Your task to perform on an android device: Check the weather Image 0: 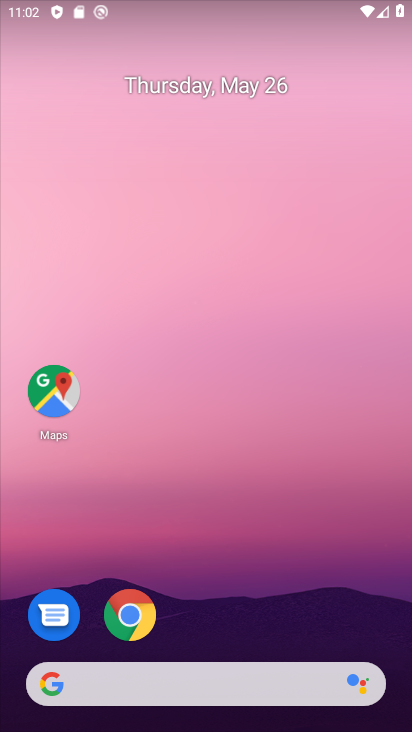
Step 0: press home button
Your task to perform on an android device: Check the weather Image 1: 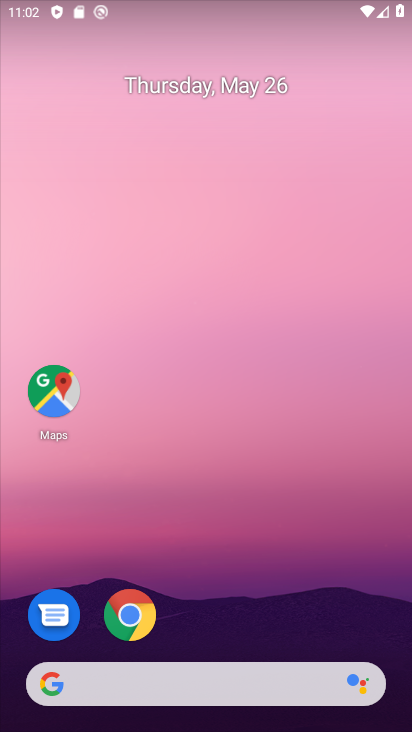
Step 1: drag from (409, 711) to (200, 232)
Your task to perform on an android device: Check the weather Image 2: 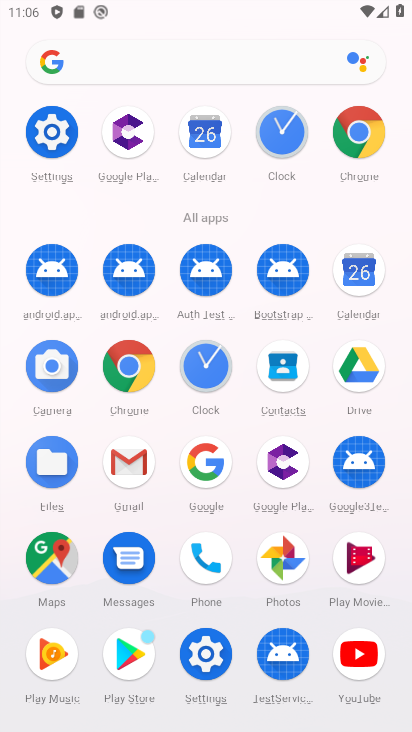
Step 2: click (372, 139)
Your task to perform on an android device: Check the weather Image 3: 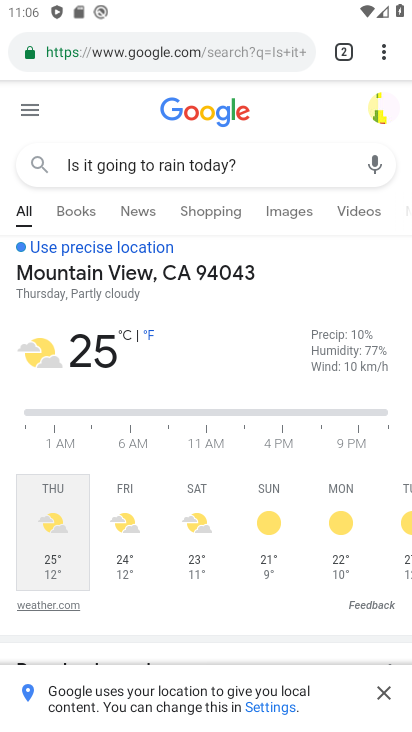
Step 3: click (248, 53)
Your task to perform on an android device: Check the weather Image 4: 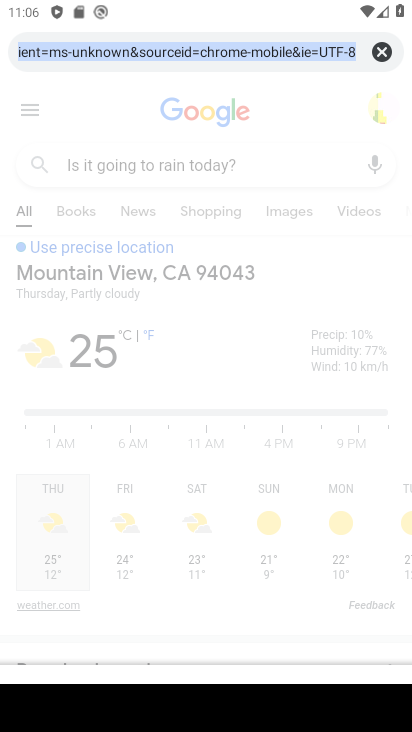
Step 4: click (377, 56)
Your task to perform on an android device: Check the weather Image 5: 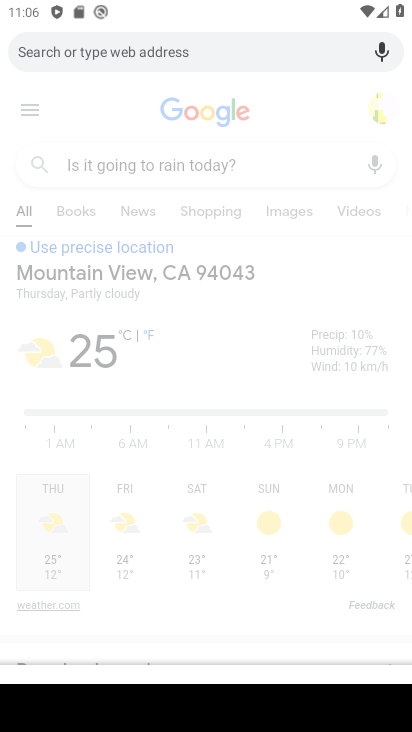
Step 5: click (73, 53)
Your task to perform on an android device: Check the weather Image 6: 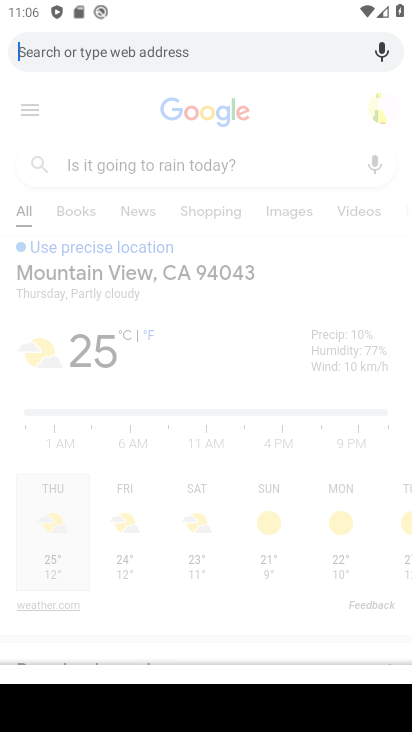
Step 6: type " weather"
Your task to perform on an android device: Check the weather Image 7: 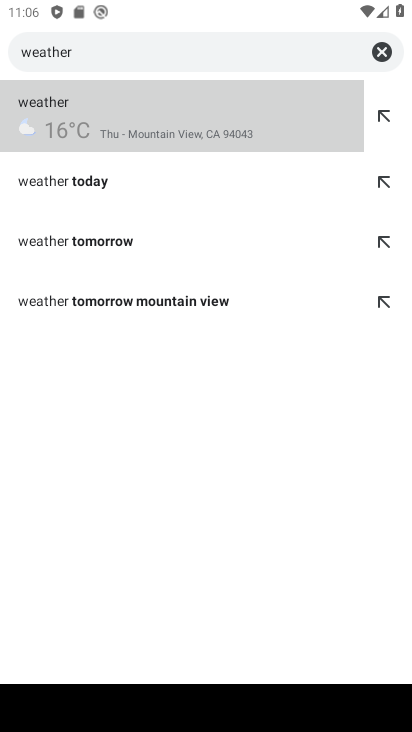
Step 7: click (309, 104)
Your task to perform on an android device: Check the weather Image 8: 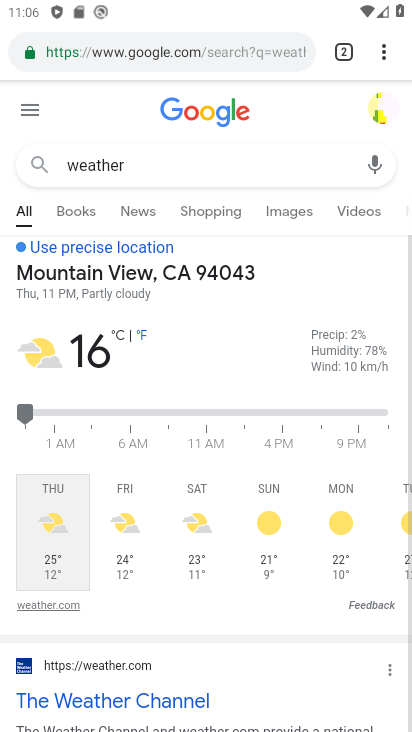
Step 8: task complete